Your task to perform on an android device: Open Reddit.com Image 0: 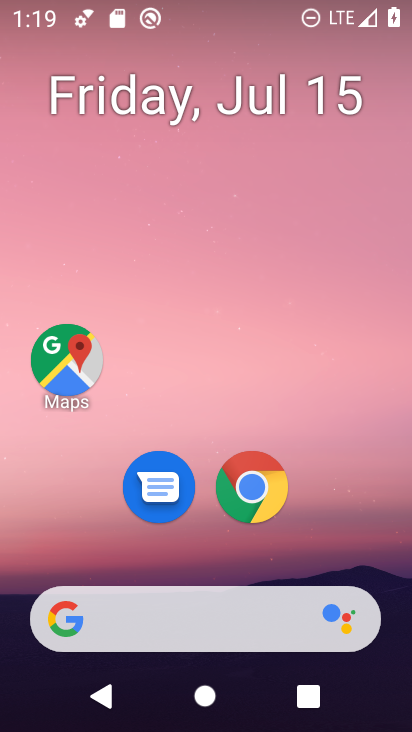
Step 0: drag from (181, 597) to (232, 149)
Your task to perform on an android device: Open Reddit.com Image 1: 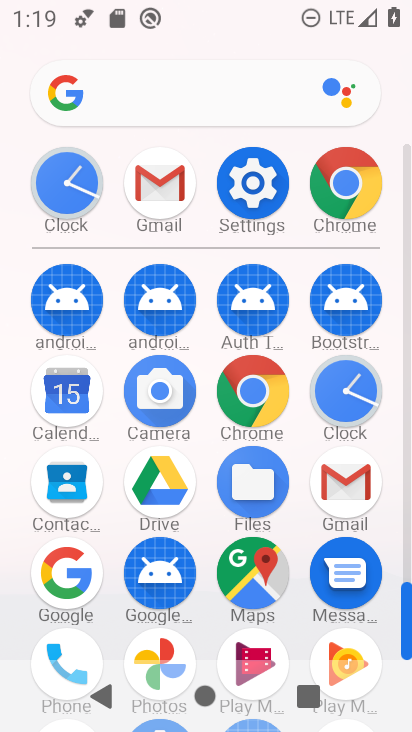
Step 1: click (329, 194)
Your task to perform on an android device: Open Reddit.com Image 2: 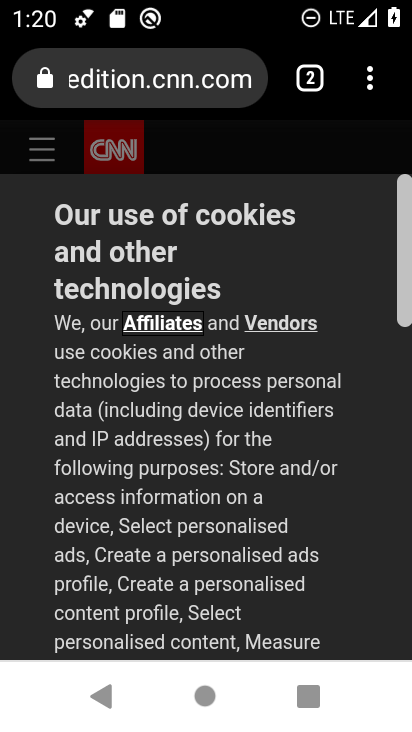
Step 2: click (223, 92)
Your task to perform on an android device: Open Reddit.com Image 3: 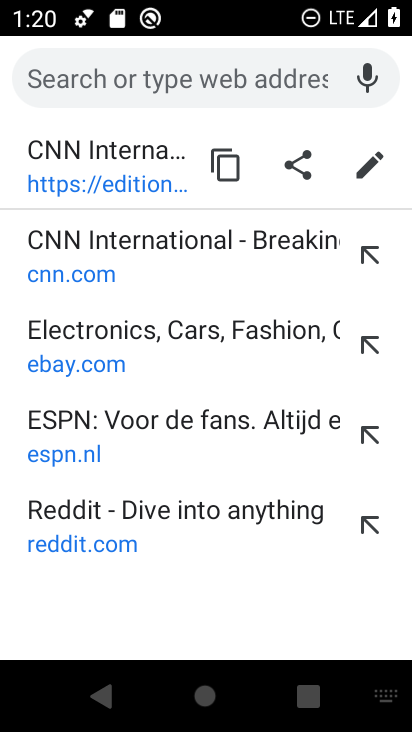
Step 3: click (191, 512)
Your task to perform on an android device: Open Reddit.com Image 4: 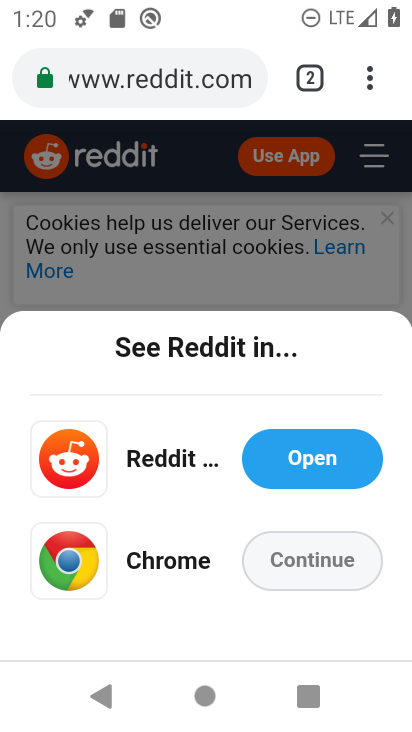
Step 4: task complete